Your task to perform on an android device: What is the news today? Image 0: 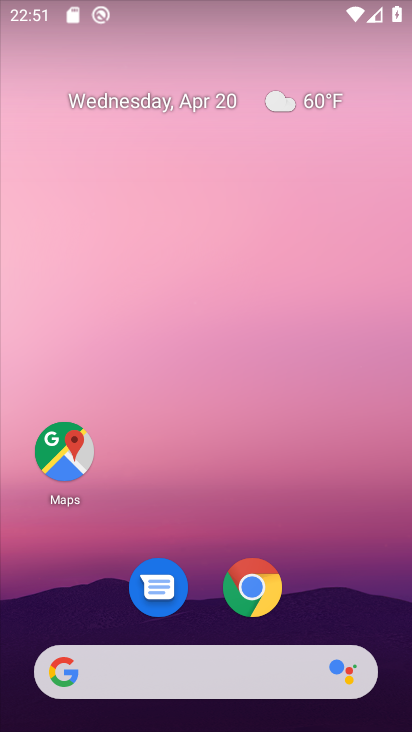
Step 0: click (246, 584)
Your task to perform on an android device: What is the news today? Image 1: 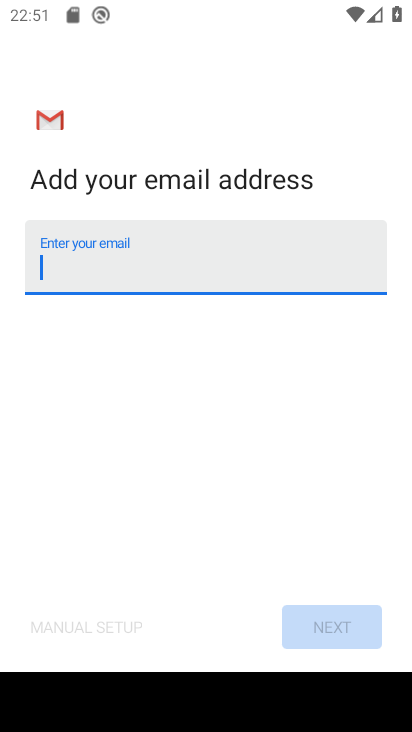
Step 1: task complete